Your task to perform on an android device: Go to Yahoo.com Image 0: 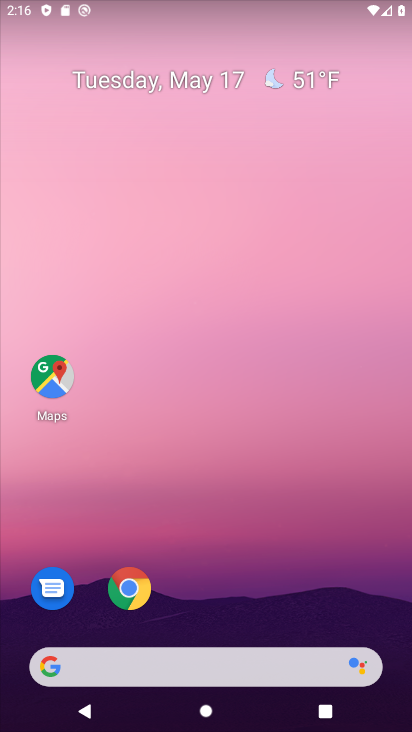
Step 0: click (134, 585)
Your task to perform on an android device: Go to Yahoo.com Image 1: 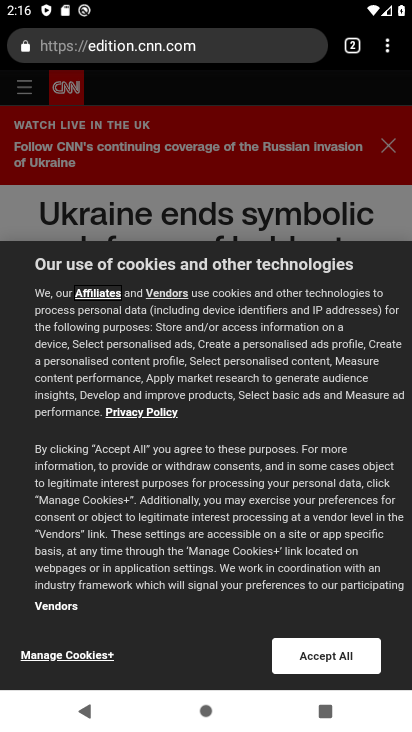
Step 1: click (348, 45)
Your task to perform on an android device: Go to Yahoo.com Image 2: 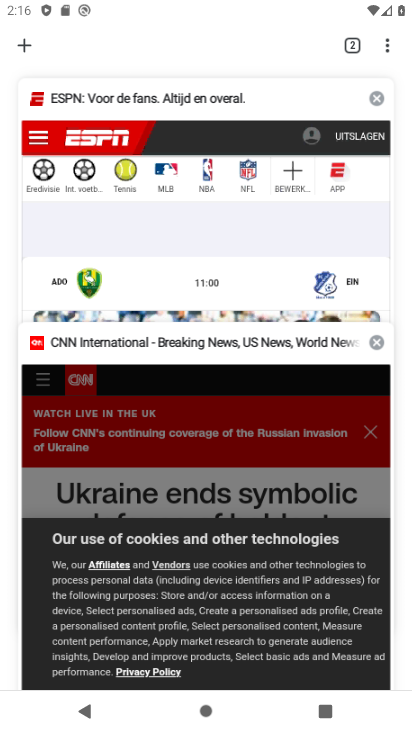
Step 2: click (20, 47)
Your task to perform on an android device: Go to Yahoo.com Image 3: 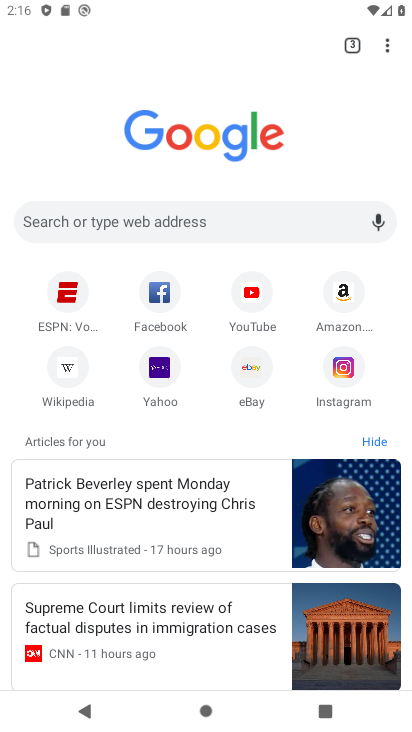
Step 3: click (152, 369)
Your task to perform on an android device: Go to Yahoo.com Image 4: 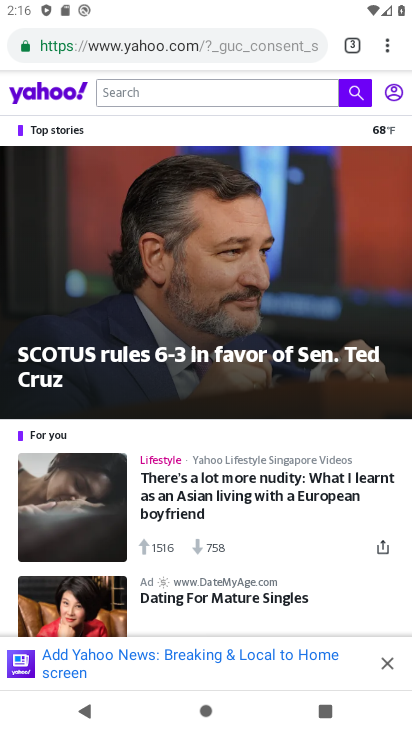
Step 4: task complete